Your task to perform on an android device: find snoozed emails in the gmail app Image 0: 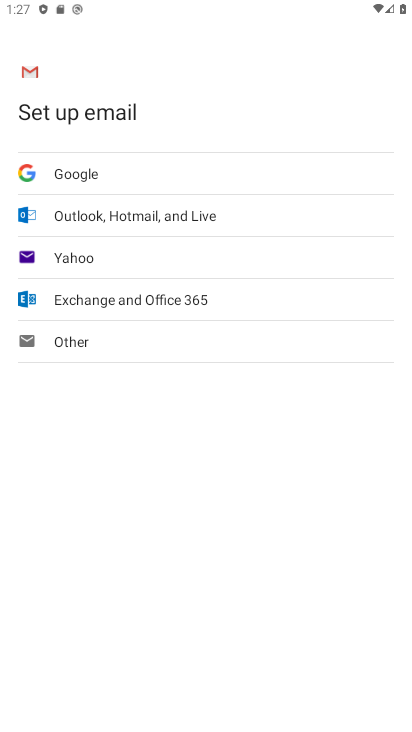
Step 0: press home button
Your task to perform on an android device: find snoozed emails in the gmail app Image 1: 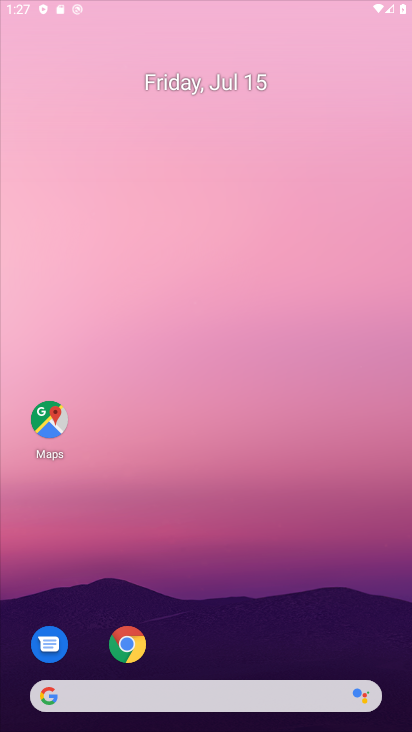
Step 1: drag from (392, 671) to (268, 58)
Your task to perform on an android device: find snoozed emails in the gmail app Image 2: 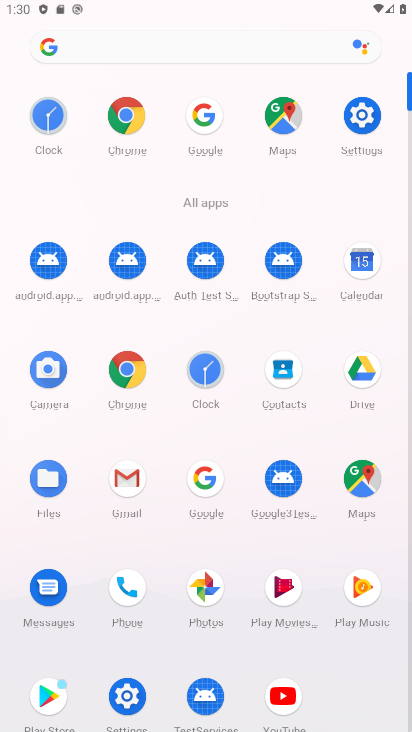
Step 2: click (124, 476)
Your task to perform on an android device: find snoozed emails in the gmail app Image 3: 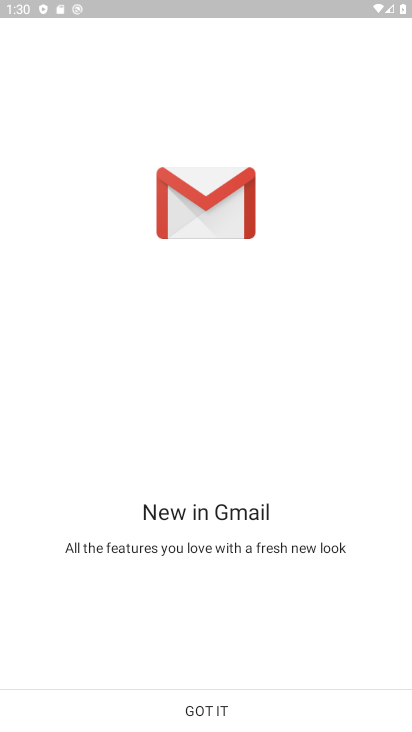
Step 3: click (225, 711)
Your task to perform on an android device: find snoozed emails in the gmail app Image 4: 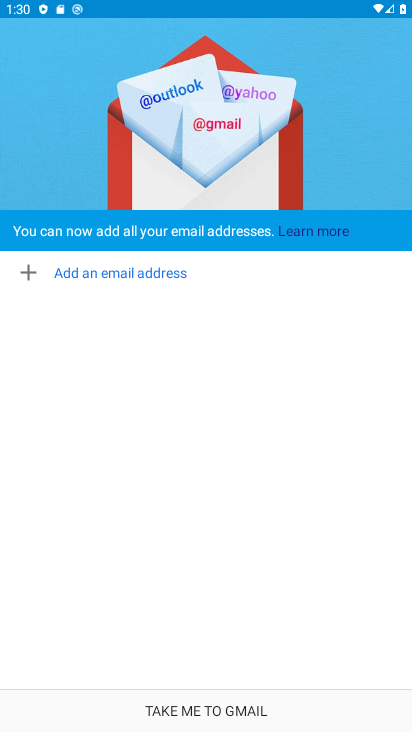
Step 4: click (225, 711)
Your task to perform on an android device: find snoozed emails in the gmail app Image 5: 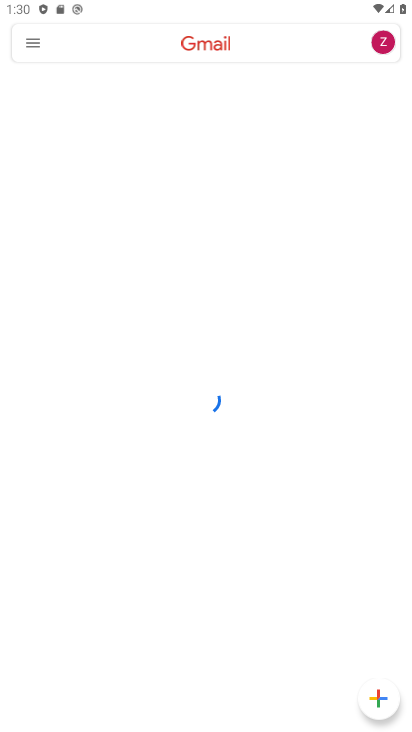
Step 5: click (27, 46)
Your task to perform on an android device: find snoozed emails in the gmail app Image 6: 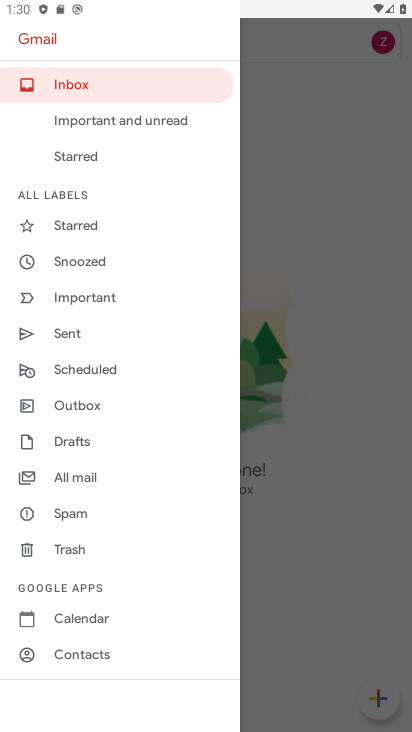
Step 6: click (90, 262)
Your task to perform on an android device: find snoozed emails in the gmail app Image 7: 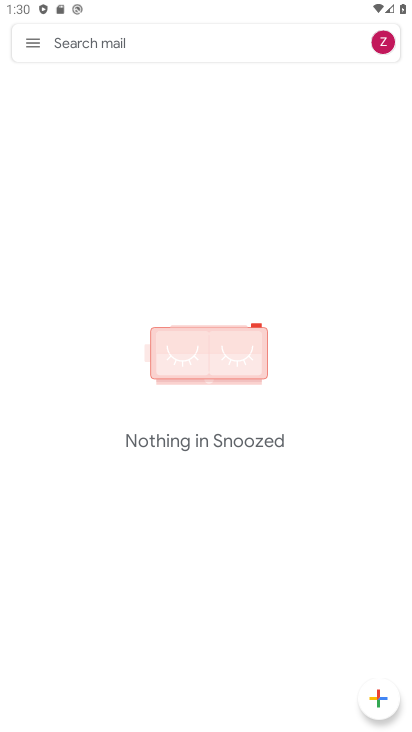
Step 7: task complete